Your task to perform on an android device: find snoozed emails in the gmail app Image 0: 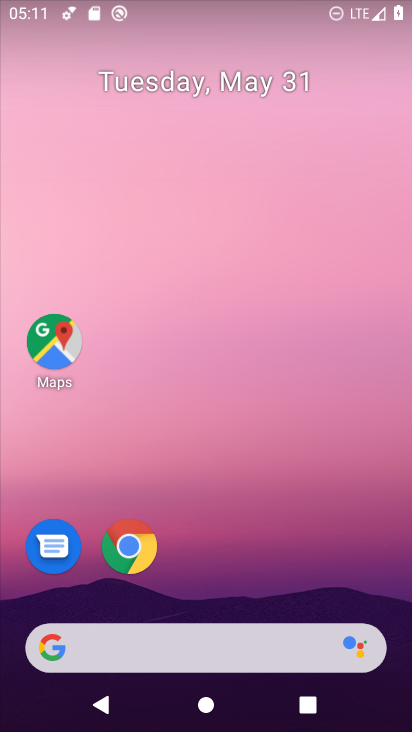
Step 0: drag from (212, 594) to (164, 101)
Your task to perform on an android device: find snoozed emails in the gmail app Image 1: 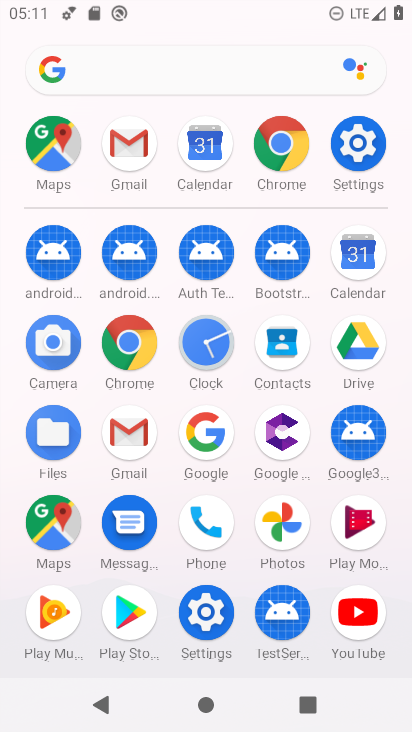
Step 1: click (120, 156)
Your task to perform on an android device: find snoozed emails in the gmail app Image 2: 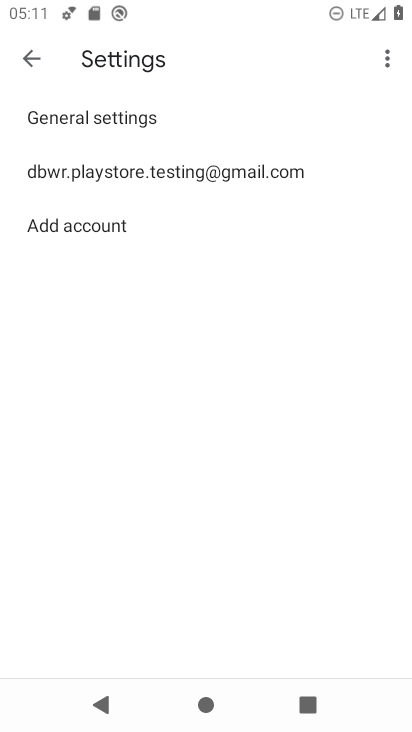
Step 2: press back button
Your task to perform on an android device: find snoozed emails in the gmail app Image 3: 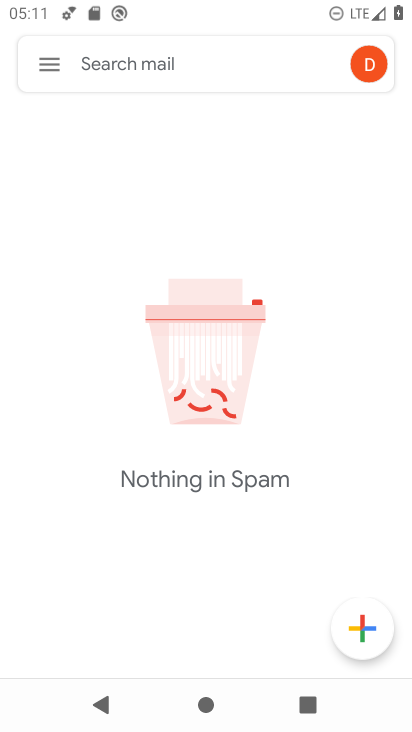
Step 3: click (61, 77)
Your task to perform on an android device: find snoozed emails in the gmail app Image 4: 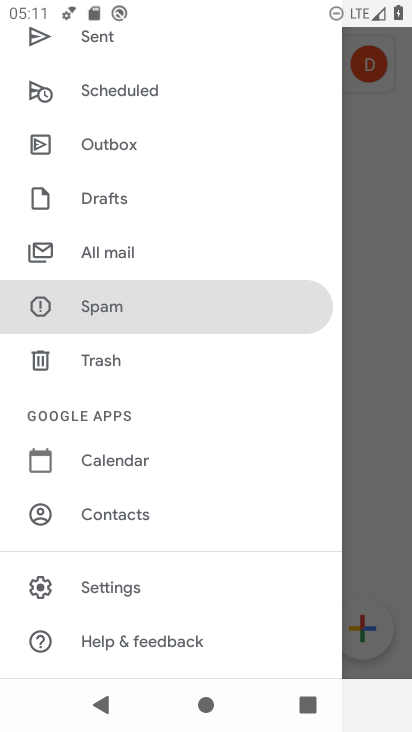
Step 4: drag from (158, 227) to (111, 504)
Your task to perform on an android device: find snoozed emails in the gmail app Image 5: 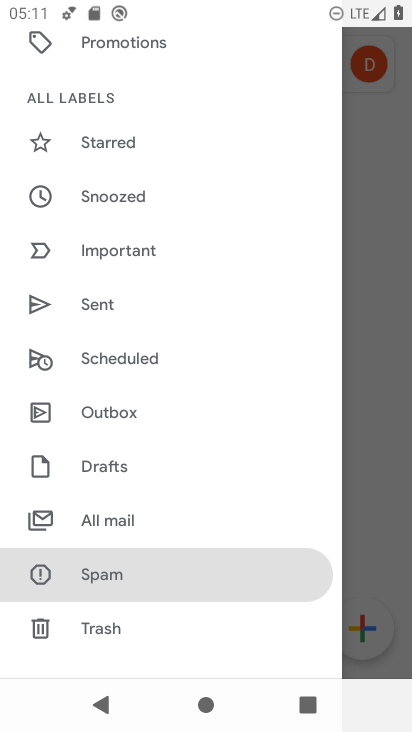
Step 5: click (116, 205)
Your task to perform on an android device: find snoozed emails in the gmail app Image 6: 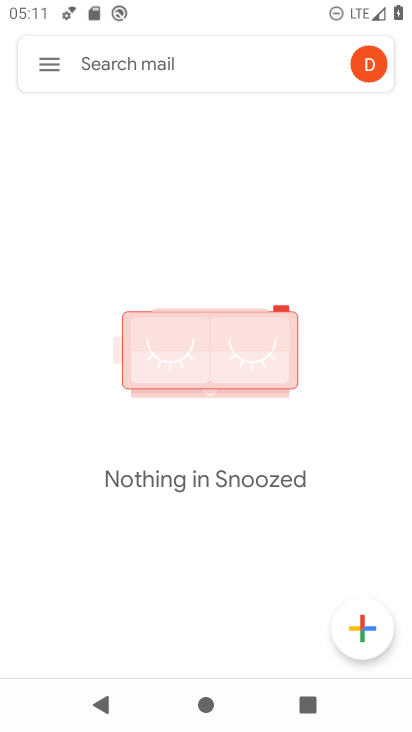
Step 6: task complete